Your task to perform on an android device: empty trash in google photos Image 0: 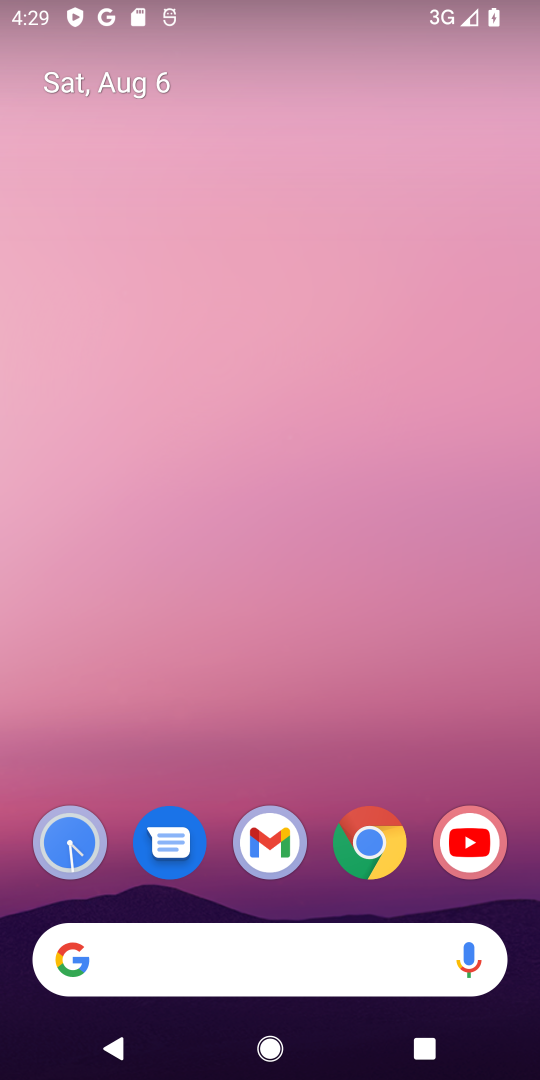
Step 0: drag from (500, 1010) to (346, 195)
Your task to perform on an android device: empty trash in google photos Image 1: 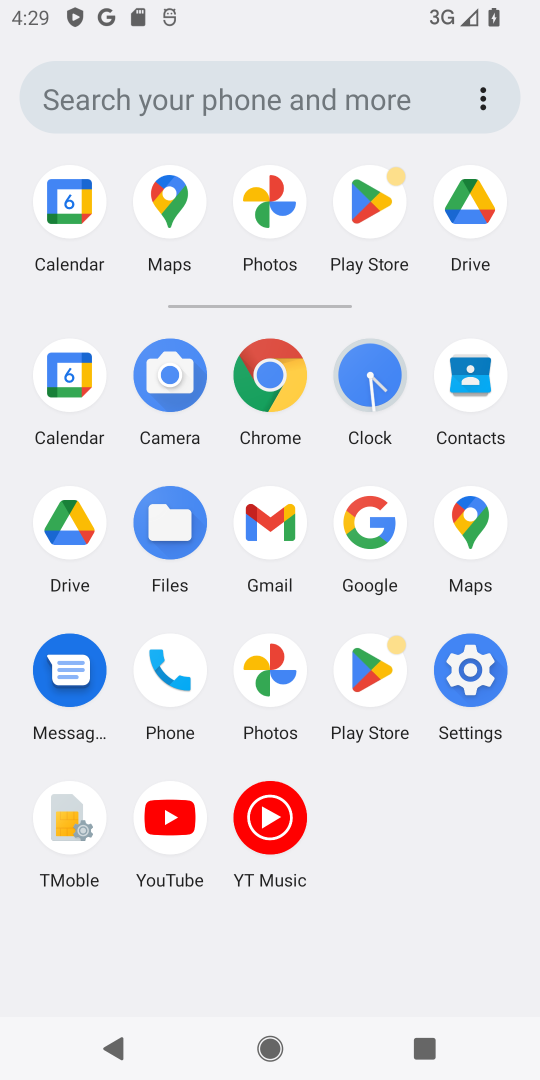
Step 1: click (278, 671)
Your task to perform on an android device: empty trash in google photos Image 2: 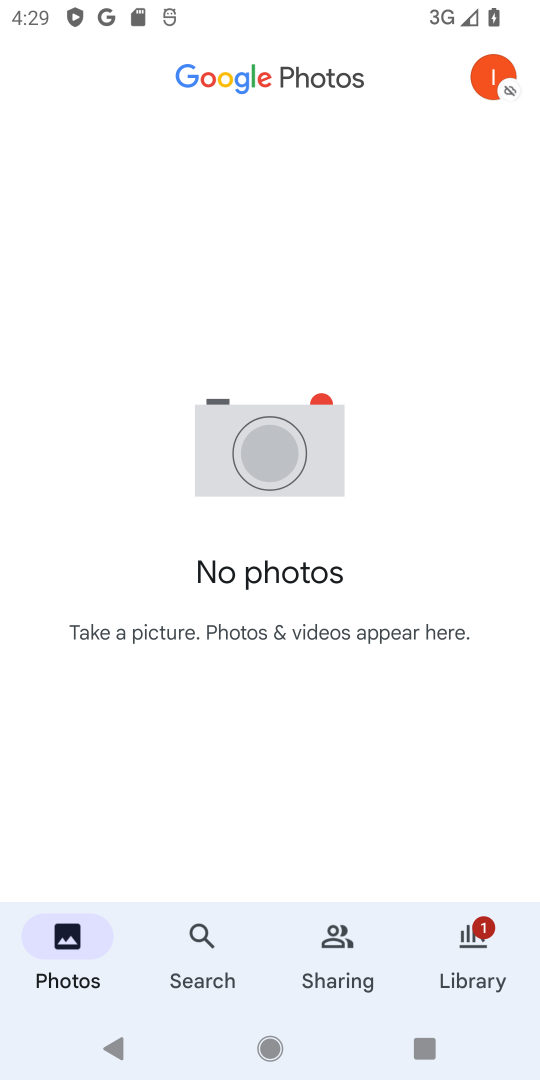
Step 2: task complete